Your task to perform on an android device: turn vacation reply on in the gmail app Image 0: 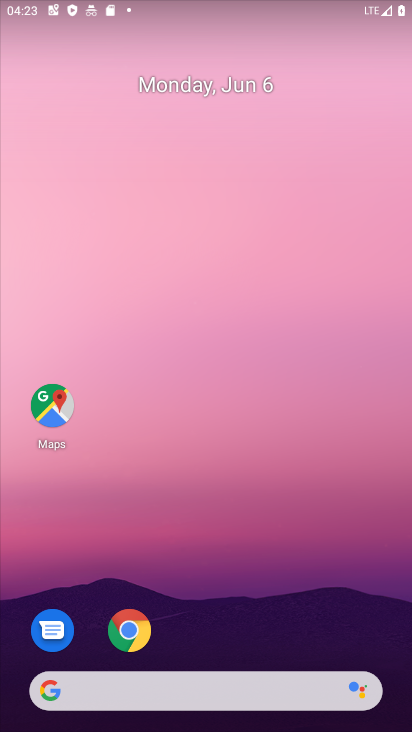
Step 0: press home button
Your task to perform on an android device: turn vacation reply on in the gmail app Image 1: 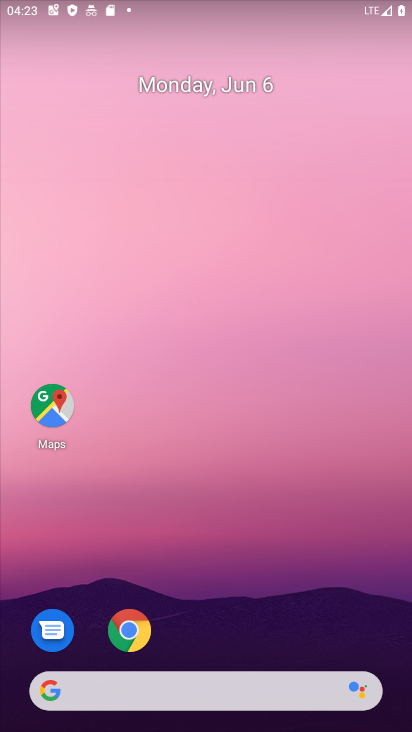
Step 1: drag from (289, 669) to (310, 47)
Your task to perform on an android device: turn vacation reply on in the gmail app Image 2: 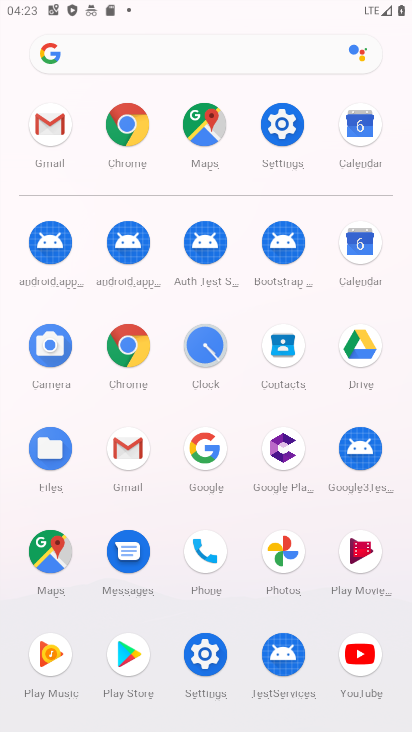
Step 2: click (141, 418)
Your task to perform on an android device: turn vacation reply on in the gmail app Image 3: 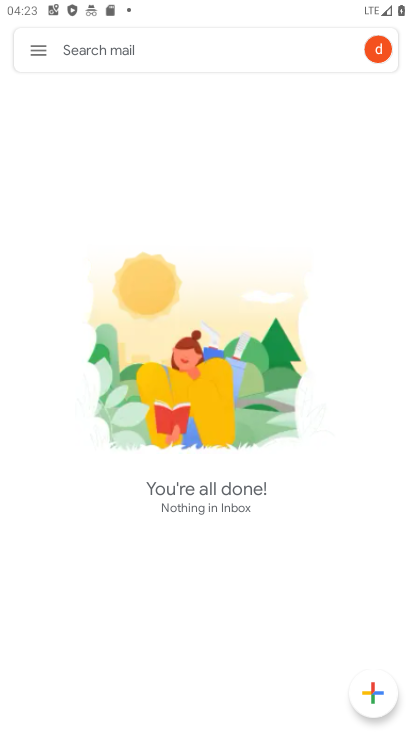
Step 3: click (46, 50)
Your task to perform on an android device: turn vacation reply on in the gmail app Image 4: 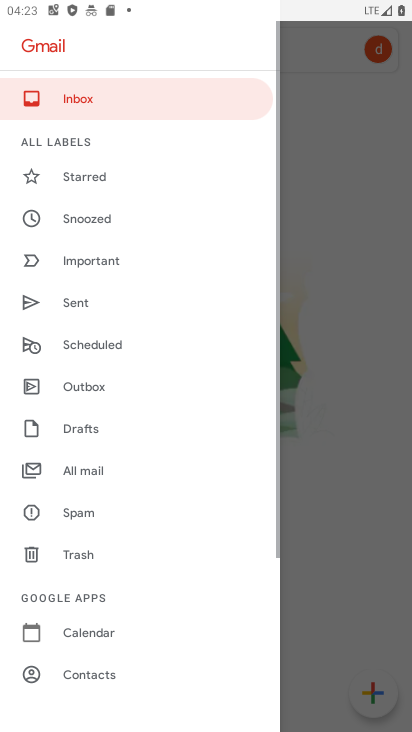
Step 4: drag from (76, 447) to (79, 1)
Your task to perform on an android device: turn vacation reply on in the gmail app Image 5: 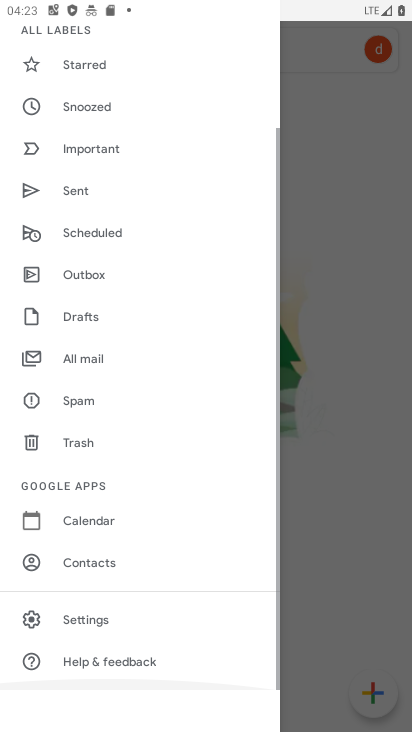
Step 5: click (88, 625)
Your task to perform on an android device: turn vacation reply on in the gmail app Image 6: 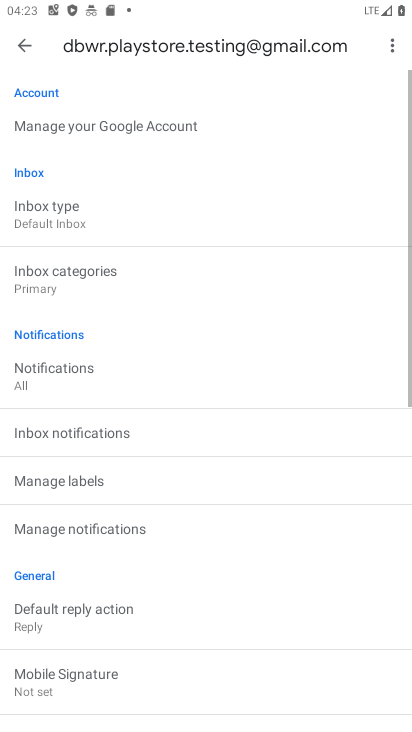
Step 6: drag from (174, 568) to (213, 189)
Your task to perform on an android device: turn vacation reply on in the gmail app Image 7: 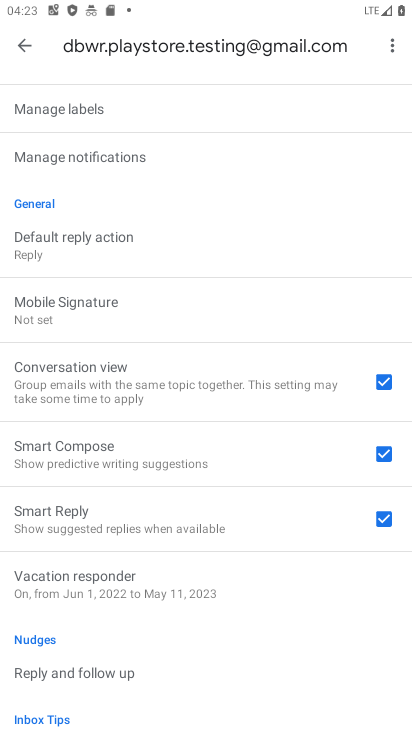
Step 7: click (73, 580)
Your task to perform on an android device: turn vacation reply on in the gmail app Image 8: 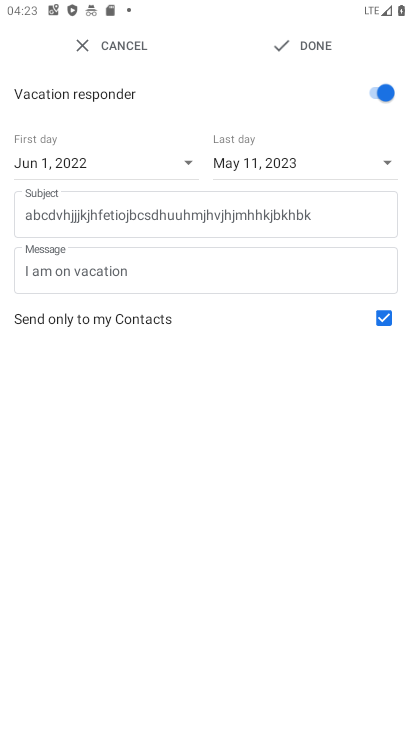
Step 8: click (93, 157)
Your task to perform on an android device: turn vacation reply on in the gmail app Image 9: 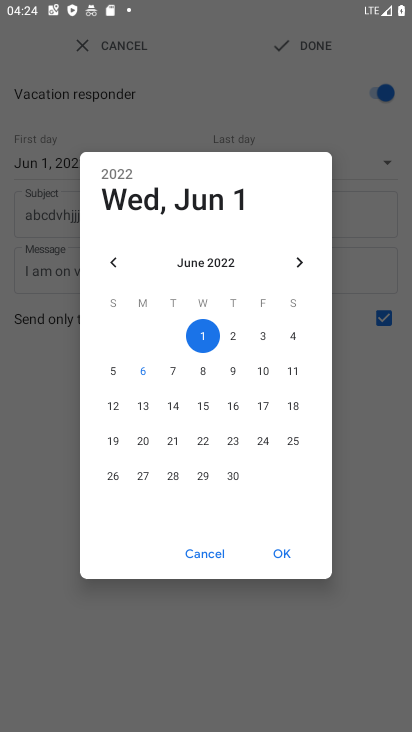
Step 9: click (133, 369)
Your task to perform on an android device: turn vacation reply on in the gmail app Image 10: 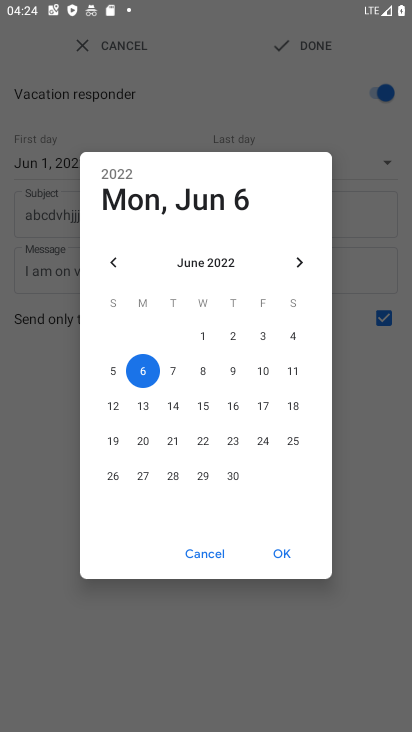
Step 10: click (287, 554)
Your task to perform on an android device: turn vacation reply on in the gmail app Image 11: 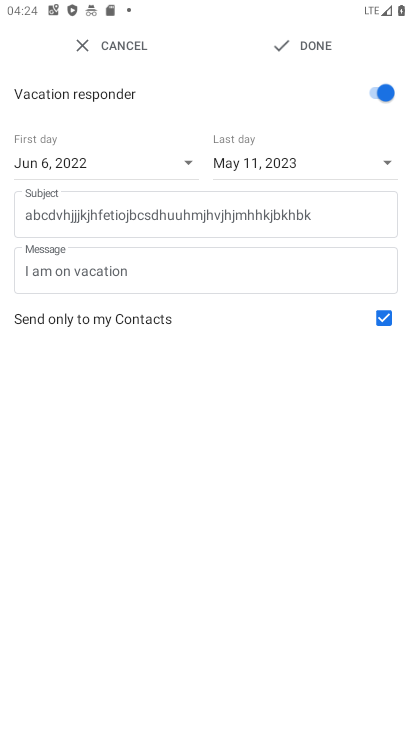
Step 11: click (304, 37)
Your task to perform on an android device: turn vacation reply on in the gmail app Image 12: 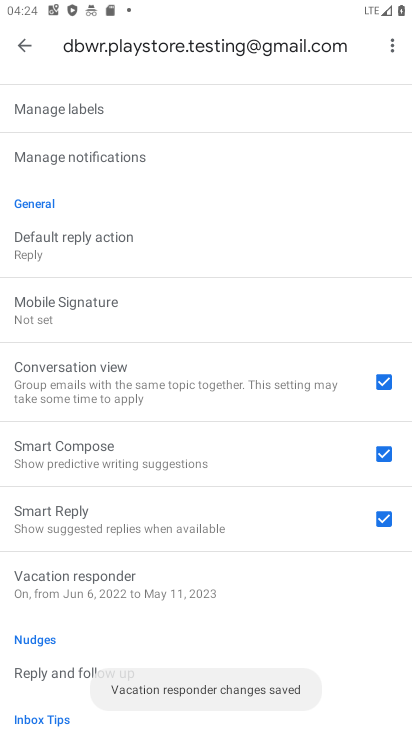
Step 12: task complete